Your task to perform on an android device: see creations saved in the google photos Image 0: 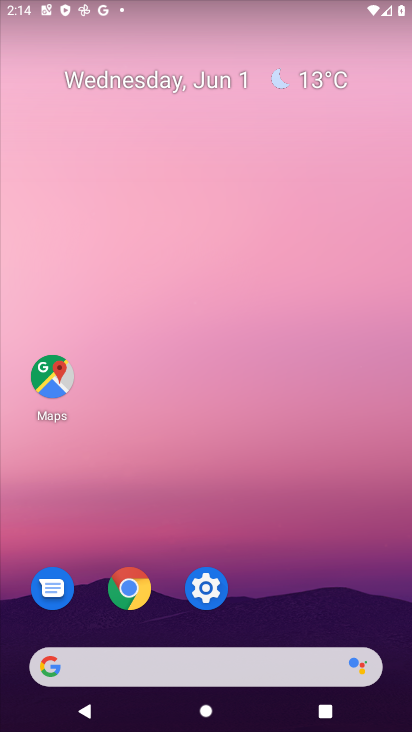
Step 0: drag from (220, 677) to (267, 367)
Your task to perform on an android device: see creations saved in the google photos Image 1: 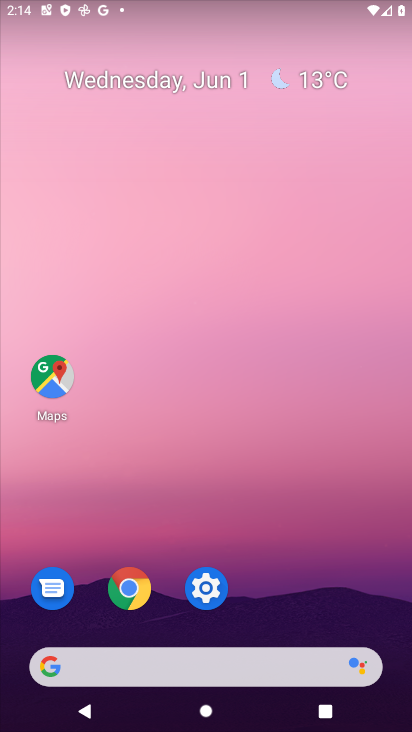
Step 1: drag from (249, 688) to (209, 169)
Your task to perform on an android device: see creations saved in the google photos Image 2: 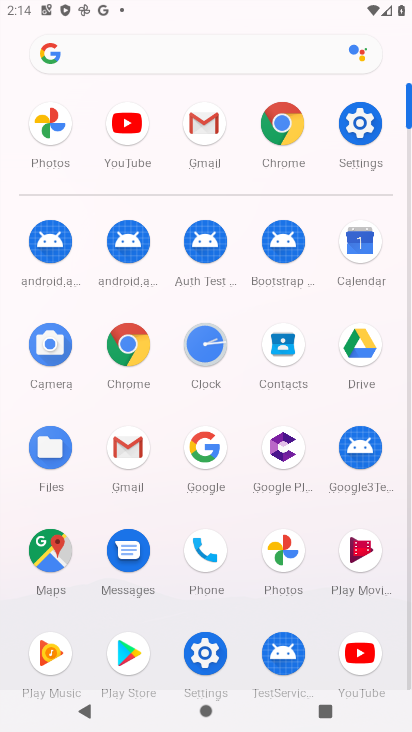
Step 2: click (282, 551)
Your task to perform on an android device: see creations saved in the google photos Image 3: 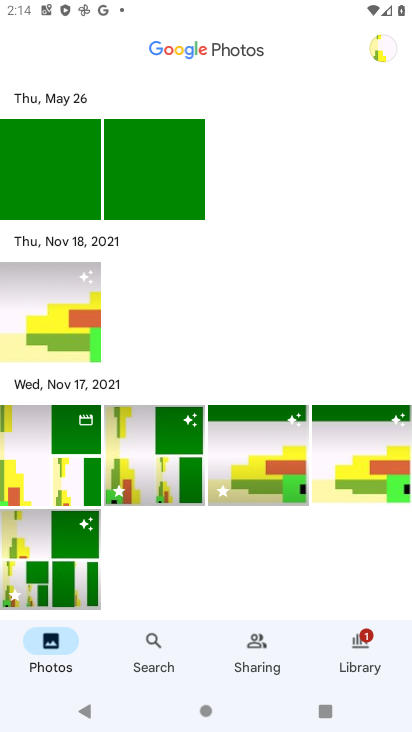
Step 3: click (260, 438)
Your task to perform on an android device: see creations saved in the google photos Image 4: 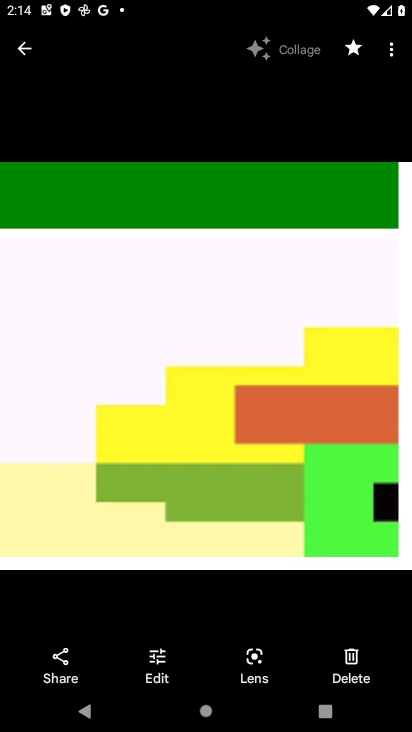
Step 4: click (391, 58)
Your task to perform on an android device: see creations saved in the google photos Image 5: 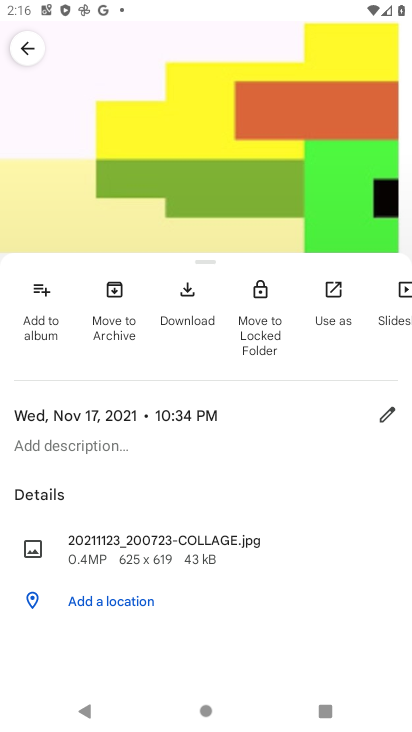
Step 5: task complete